Your task to perform on an android device: open wifi settings Image 0: 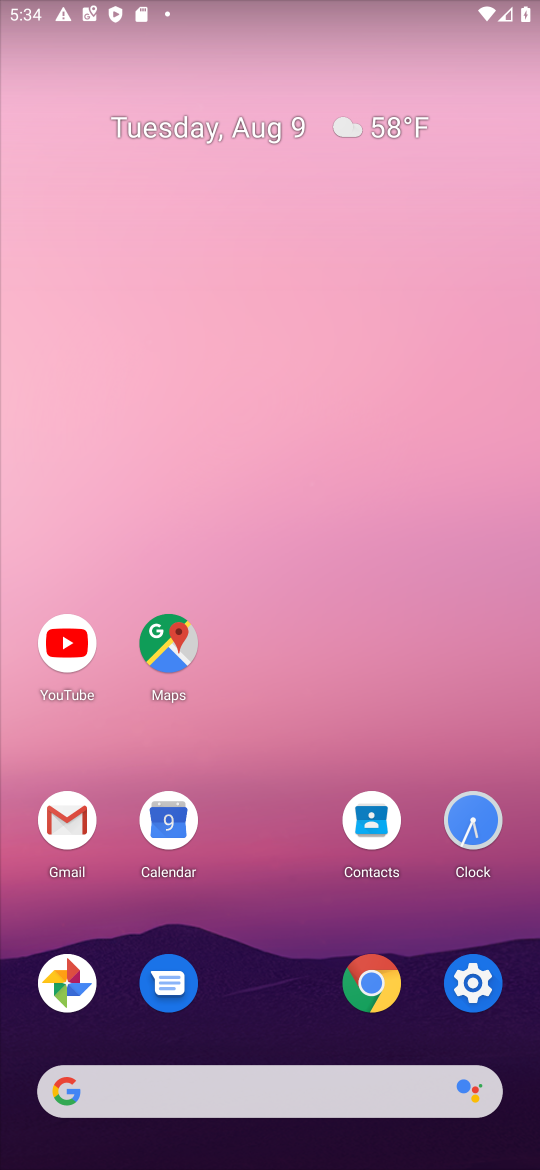
Step 0: click (471, 982)
Your task to perform on an android device: open wifi settings Image 1: 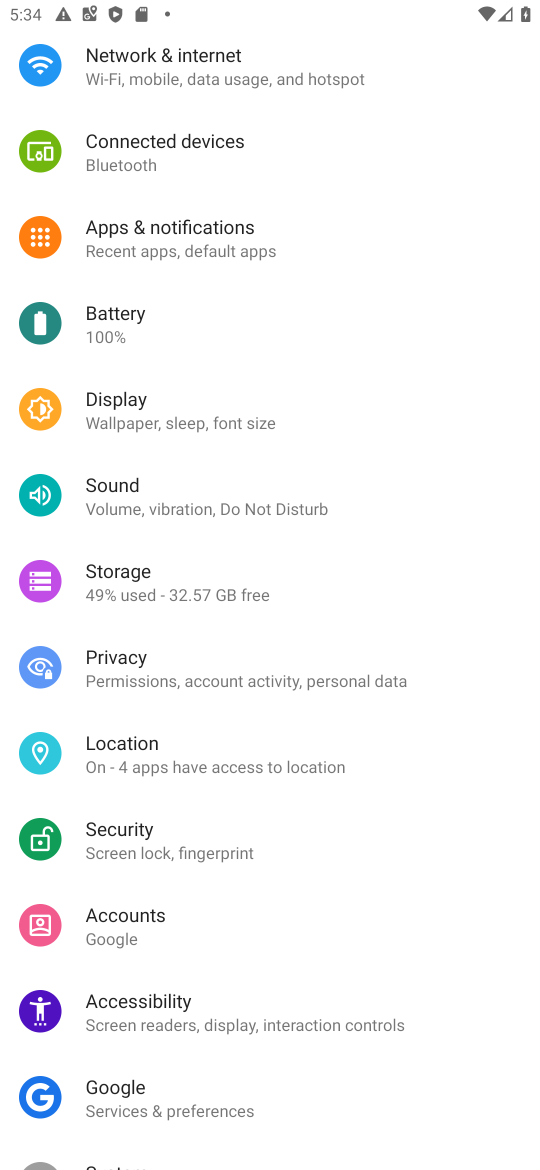
Step 1: click (145, 63)
Your task to perform on an android device: open wifi settings Image 2: 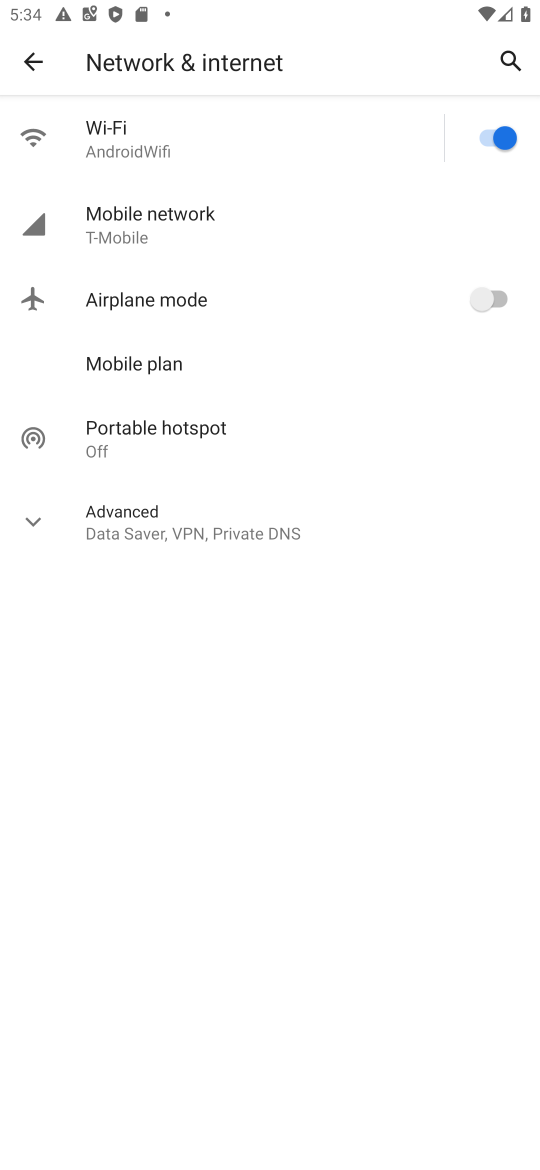
Step 2: task complete